Your task to perform on an android device: change keyboard looks Image 0: 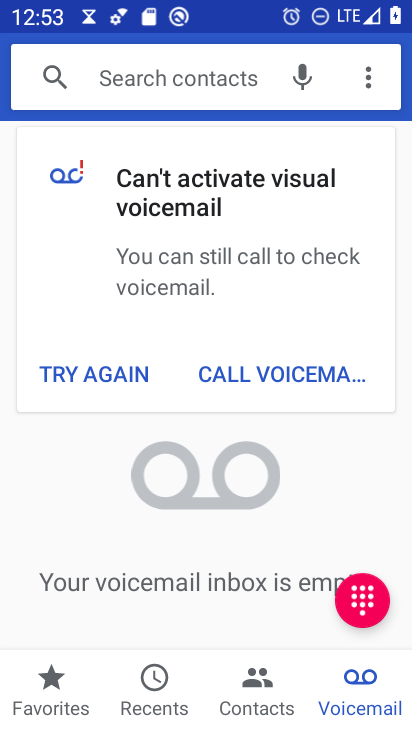
Step 0: press home button
Your task to perform on an android device: change keyboard looks Image 1: 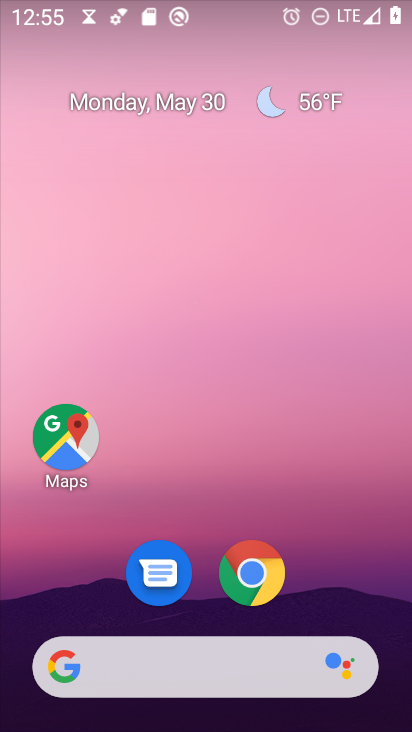
Step 1: drag from (313, 704) to (316, 76)
Your task to perform on an android device: change keyboard looks Image 2: 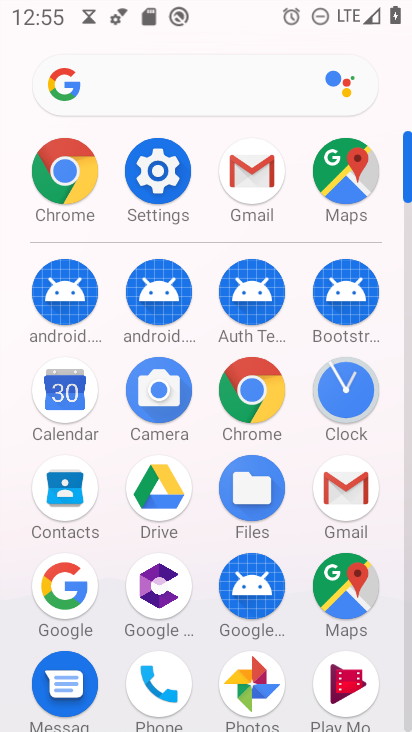
Step 2: click (152, 186)
Your task to perform on an android device: change keyboard looks Image 3: 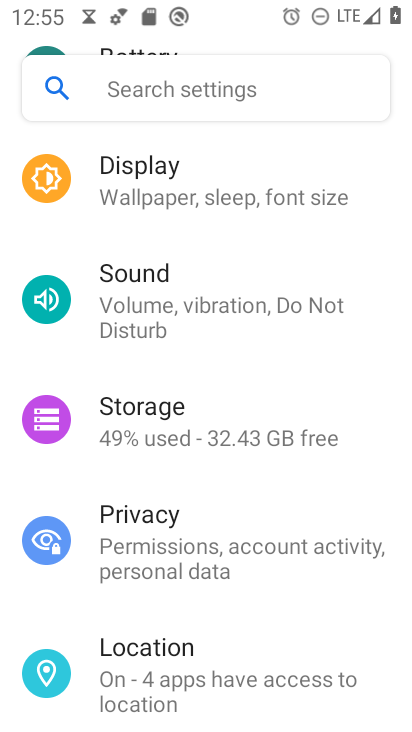
Step 3: drag from (212, 575) to (282, 110)
Your task to perform on an android device: change keyboard looks Image 4: 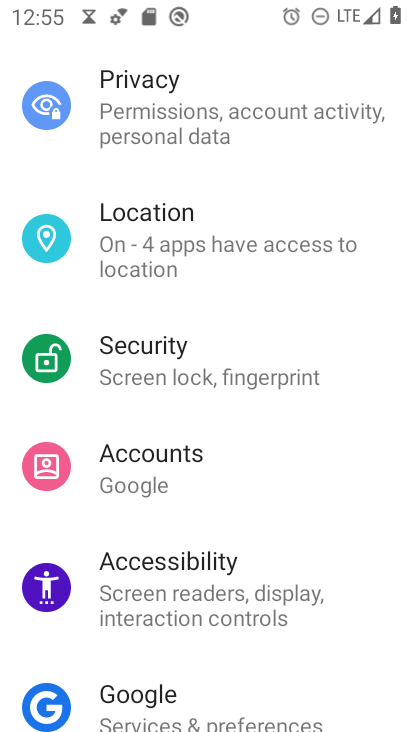
Step 4: drag from (227, 611) to (294, 126)
Your task to perform on an android device: change keyboard looks Image 5: 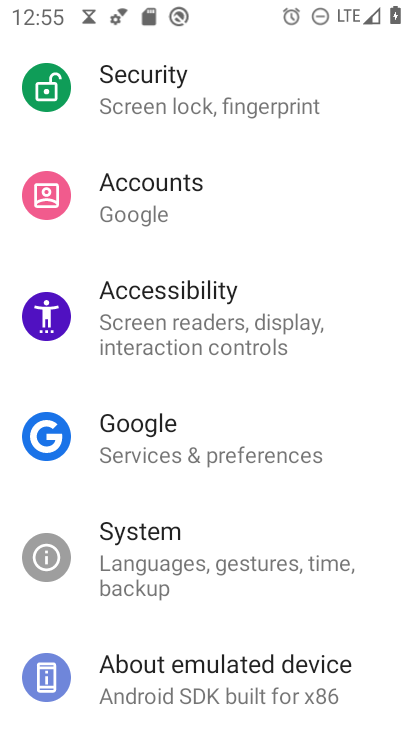
Step 5: click (204, 564)
Your task to perform on an android device: change keyboard looks Image 6: 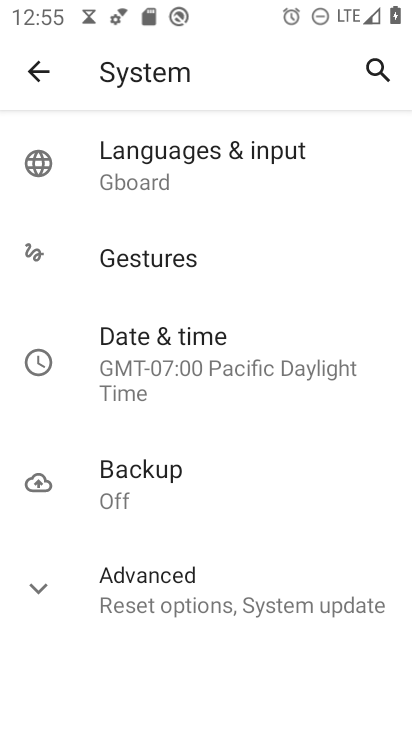
Step 6: click (203, 175)
Your task to perform on an android device: change keyboard looks Image 7: 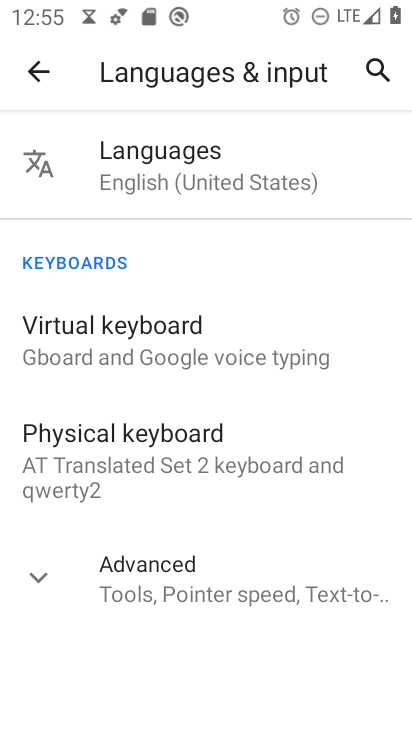
Step 7: click (170, 336)
Your task to perform on an android device: change keyboard looks Image 8: 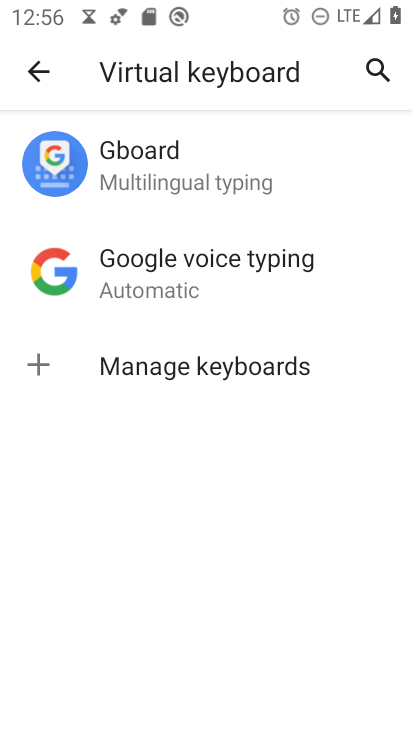
Step 8: click (246, 166)
Your task to perform on an android device: change keyboard looks Image 9: 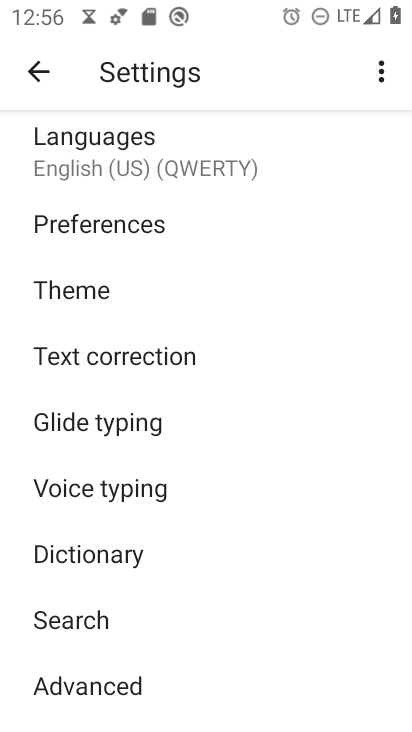
Step 9: drag from (151, 295) to (61, 295)
Your task to perform on an android device: change keyboard looks Image 10: 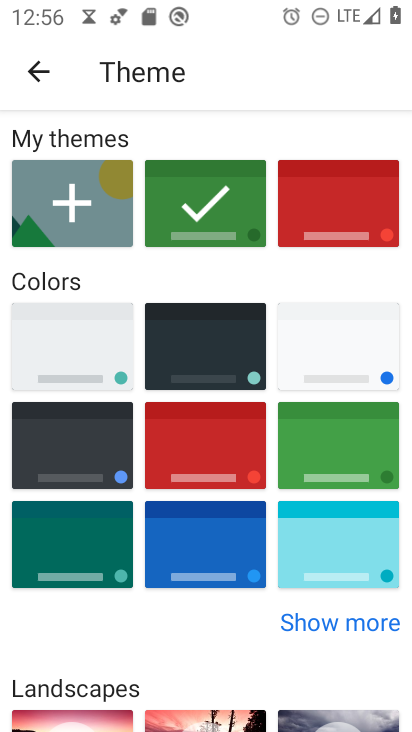
Step 10: click (344, 443)
Your task to perform on an android device: change keyboard looks Image 11: 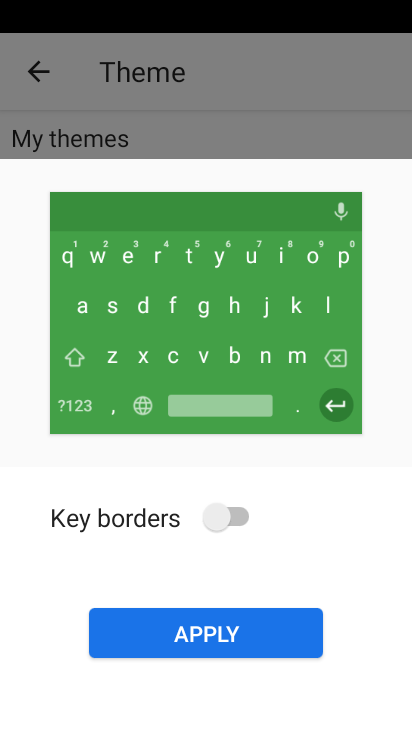
Step 11: click (265, 638)
Your task to perform on an android device: change keyboard looks Image 12: 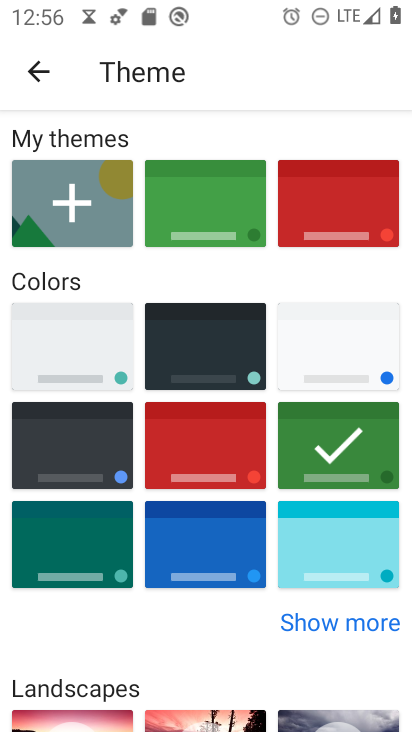
Step 12: task complete